Your task to perform on an android device: turn pop-ups on in chrome Image 0: 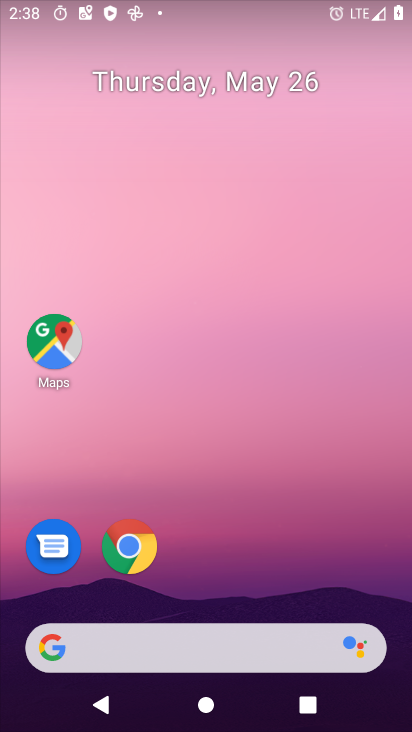
Step 0: click (134, 548)
Your task to perform on an android device: turn pop-ups on in chrome Image 1: 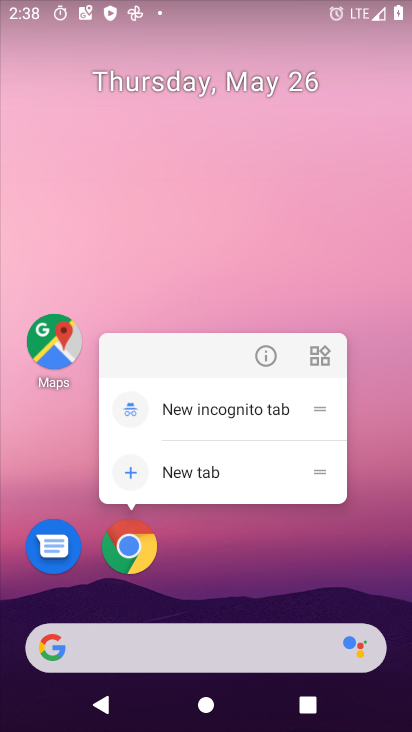
Step 1: click (134, 548)
Your task to perform on an android device: turn pop-ups on in chrome Image 2: 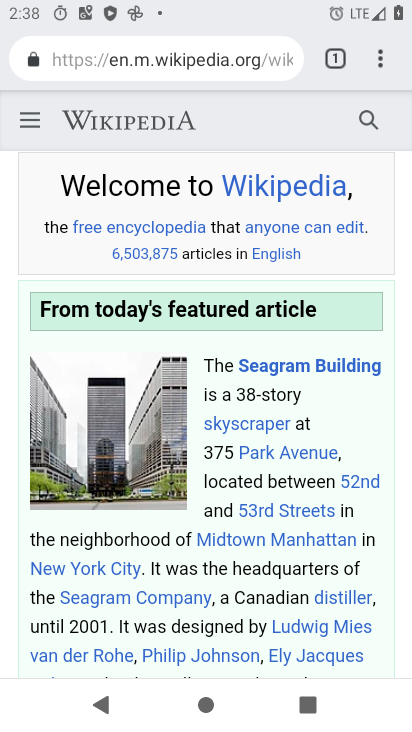
Step 2: click (368, 56)
Your task to perform on an android device: turn pop-ups on in chrome Image 3: 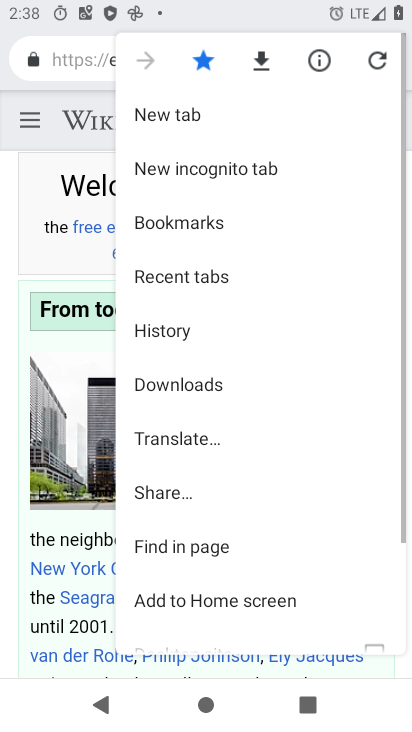
Step 3: drag from (170, 618) to (261, 180)
Your task to perform on an android device: turn pop-ups on in chrome Image 4: 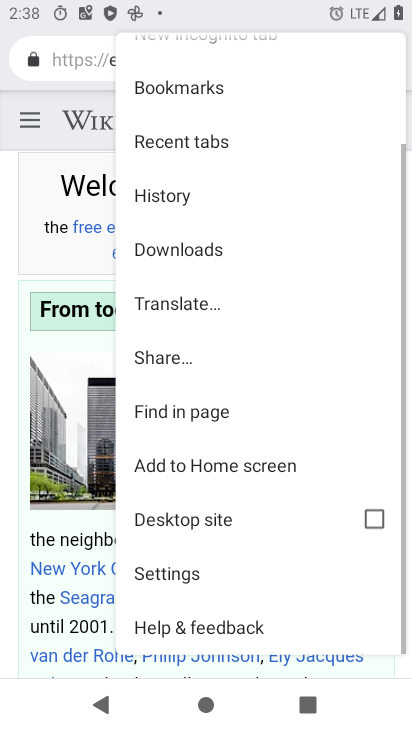
Step 4: click (213, 570)
Your task to perform on an android device: turn pop-ups on in chrome Image 5: 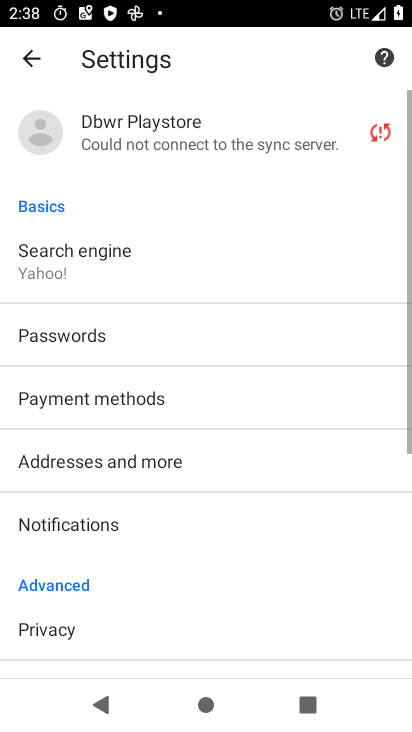
Step 5: drag from (150, 667) to (227, 204)
Your task to perform on an android device: turn pop-ups on in chrome Image 6: 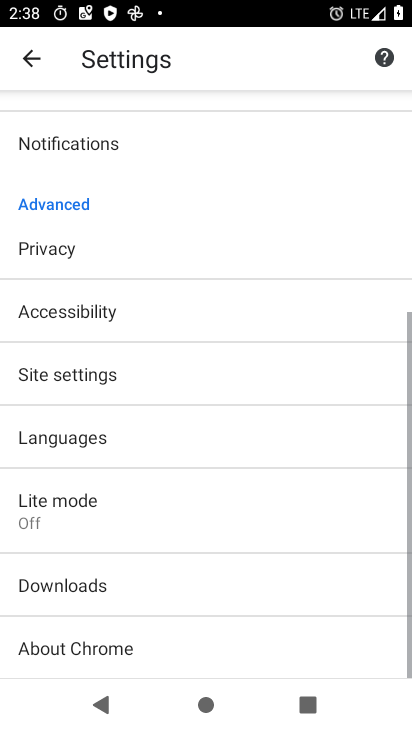
Step 6: click (74, 367)
Your task to perform on an android device: turn pop-ups on in chrome Image 7: 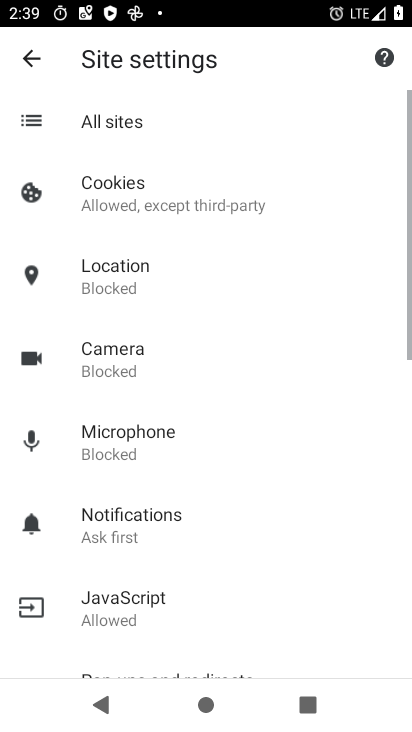
Step 7: drag from (243, 591) to (245, 138)
Your task to perform on an android device: turn pop-ups on in chrome Image 8: 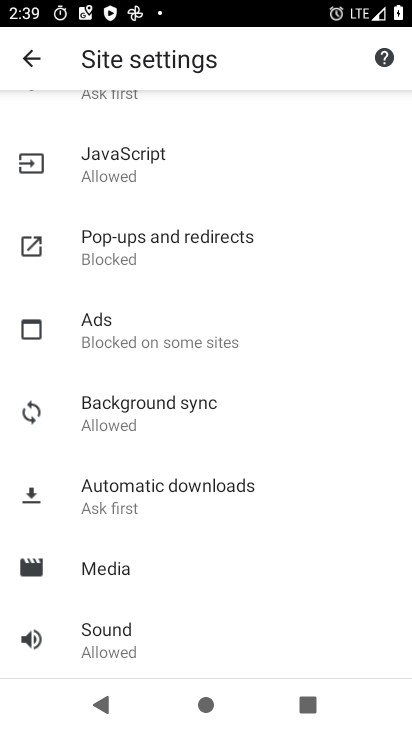
Step 8: click (130, 243)
Your task to perform on an android device: turn pop-ups on in chrome Image 9: 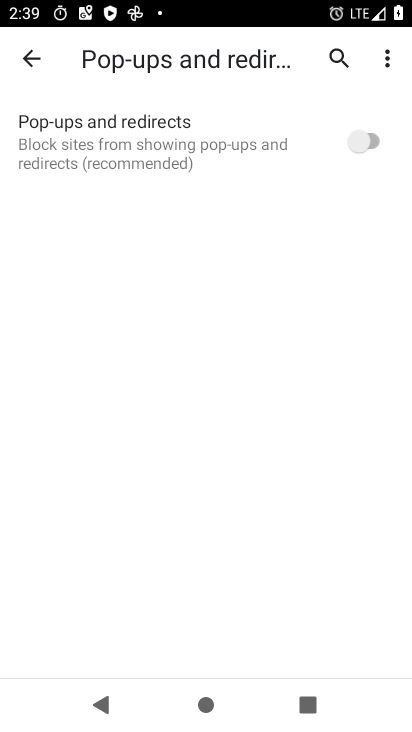
Step 9: click (369, 147)
Your task to perform on an android device: turn pop-ups on in chrome Image 10: 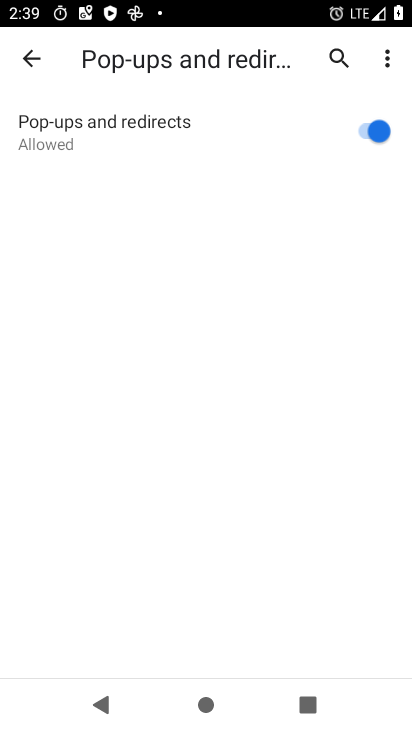
Step 10: task complete